Your task to perform on an android device: Go to wifi settings Image 0: 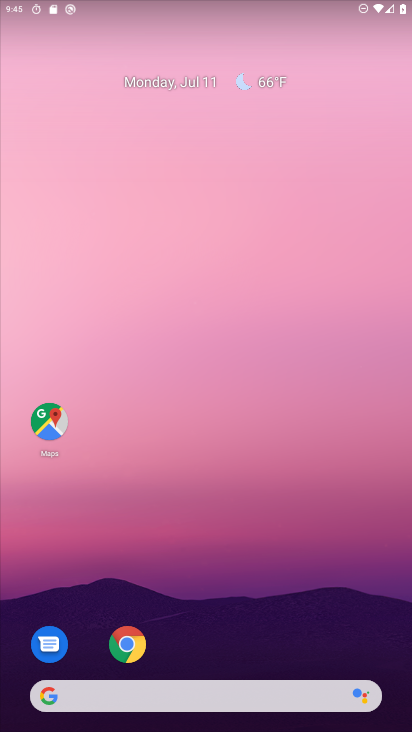
Step 0: drag from (287, 615) to (234, 160)
Your task to perform on an android device: Go to wifi settings Image 1: 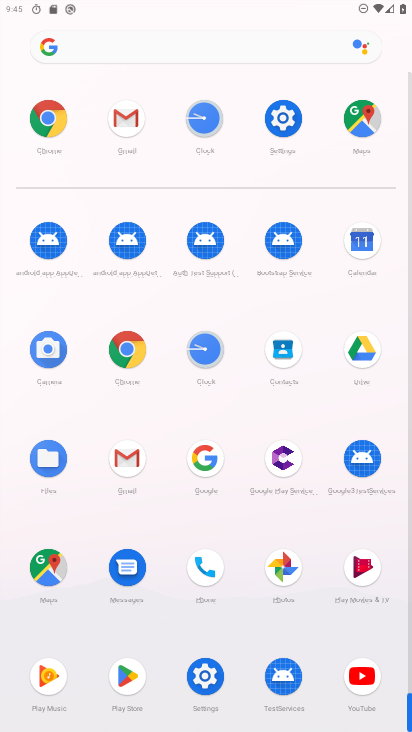
Step 1: click (276, 122)
Your task to perform on an android device: Go to wifi settings Image 2: 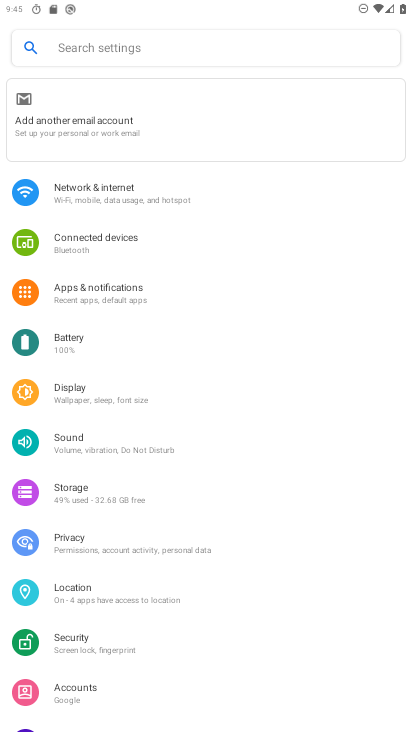
Step 2: click (115, 188)
Your task to perform on an android device: Go to wifi settings Image 3: 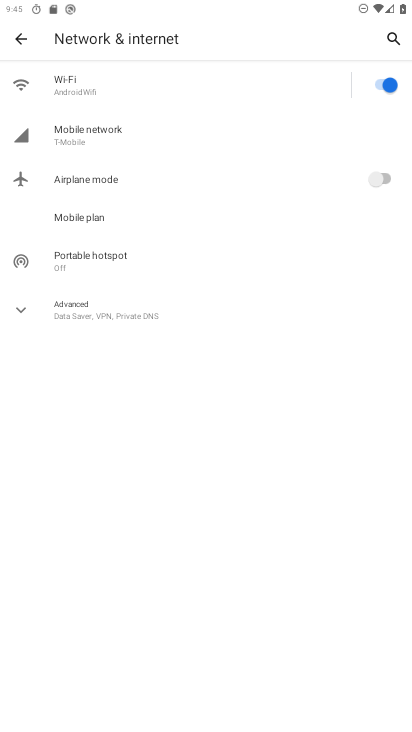
Step 3: click (149, 89)
Your task to perform on an android device: Go to wifi settings Image 4: 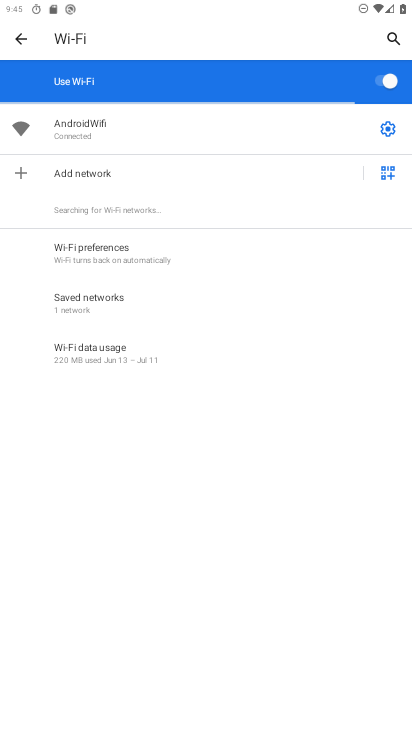
Step 4: click (390, 130)
Your task to perform on an android device: Go to wifi settings Image 5: 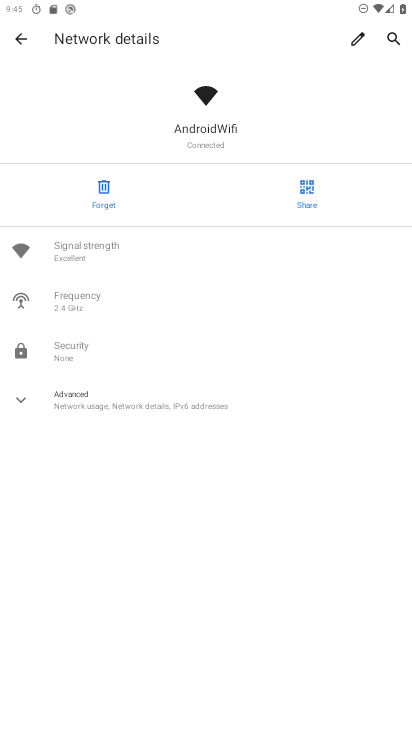
Step 5: task complete